Your task to perform on an android device: Open eBay Image 0: 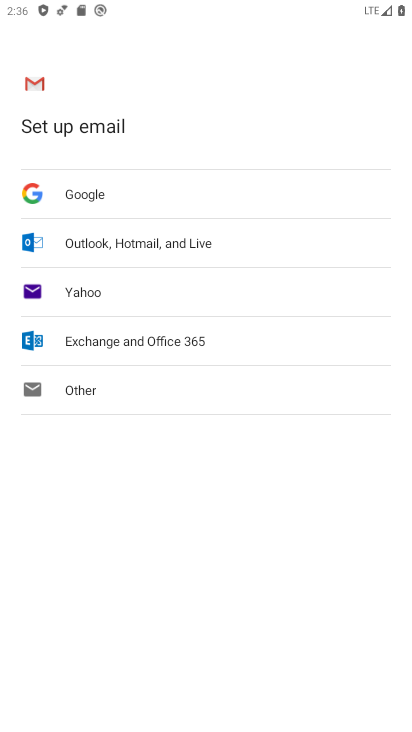
Step 0: press home button
Your task to perform on an android device: Open eBay Image 1: 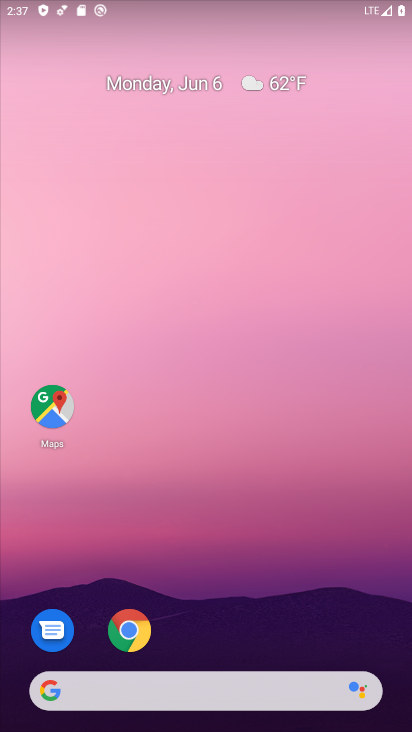
Step 1: click (137, 624)
Your task to perform on an android device: Open eBay Image 2: 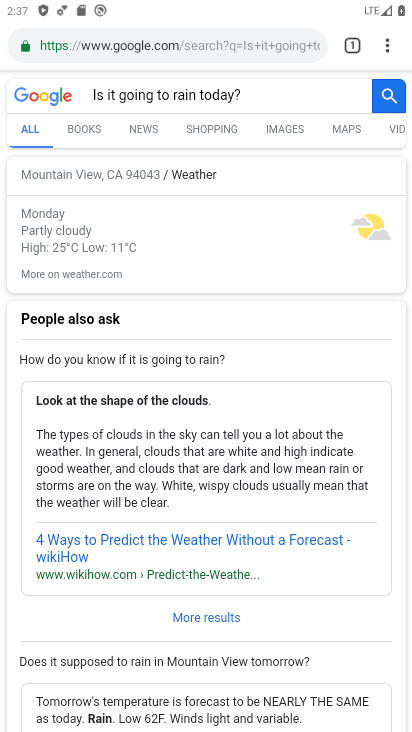
Step 2: drag from (380, 38) to (228, 87)
Your task to perform on an android device: Open eBay Image 3: 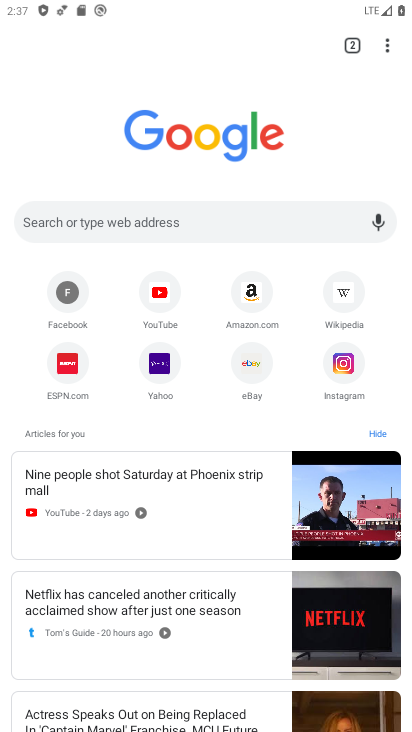
Step 3: click (234, 376)
Your task to perform on an android device: Open eBay Image 4: 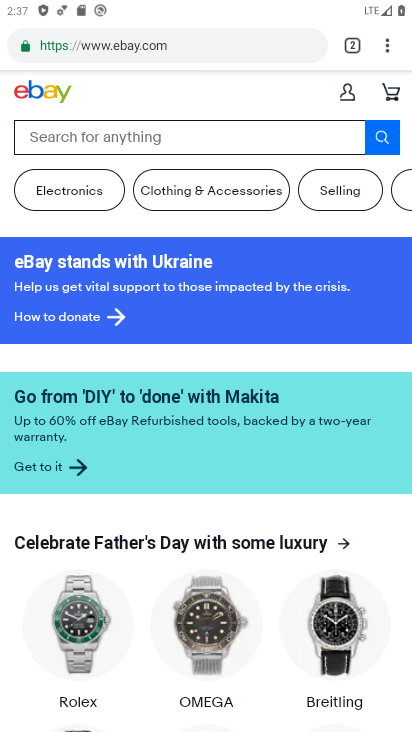
Step 4: task complete